Your task to perform on an android device: see sites visited before in the chrome app Image 0: 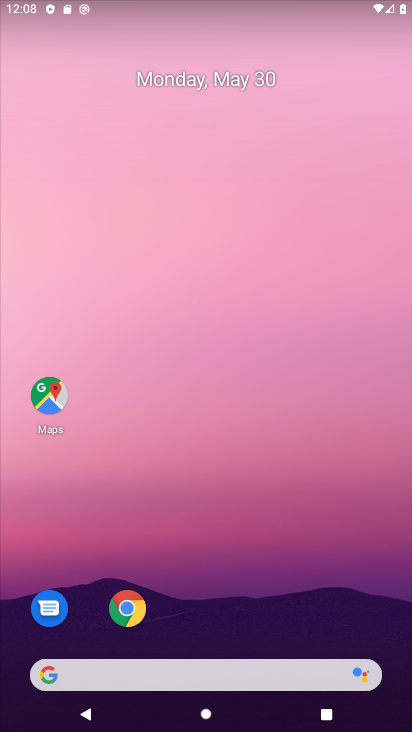
Step 0: click (127, 605)
Your task to perform on an android device: see sites visited before in the chrome app Image 1: 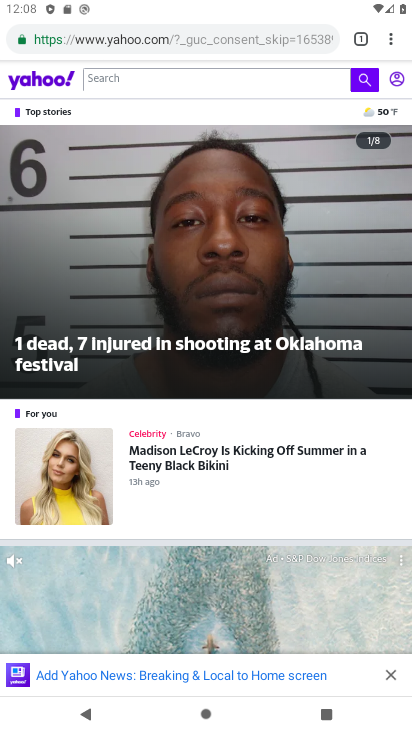
Step 1: click (397, 38)
Your task to perform on an android device: see sites visited before in the chrome app Image 2: 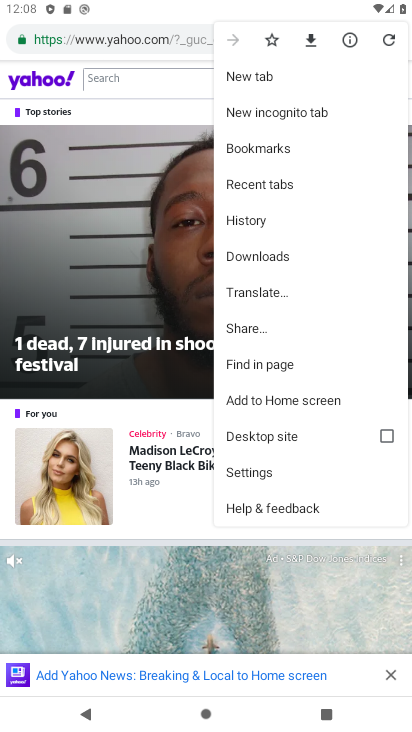
Step 2: click (255, 221)
Your task to perform on an android device: see sites visited before in the chrome app Image 3: 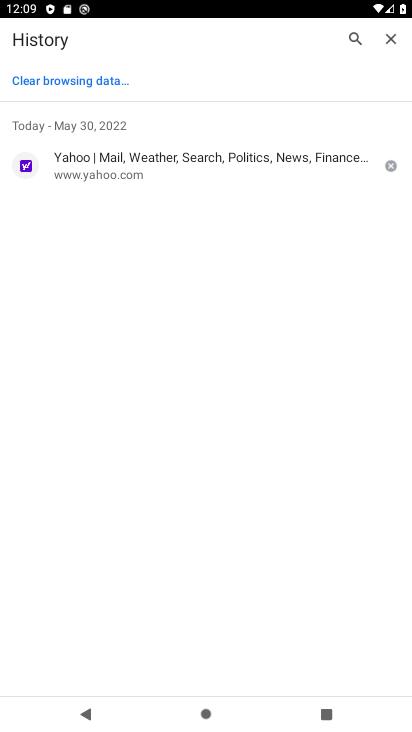
Step 3: task complete